Your task to perform on an android device: What's the weather? Image 0: 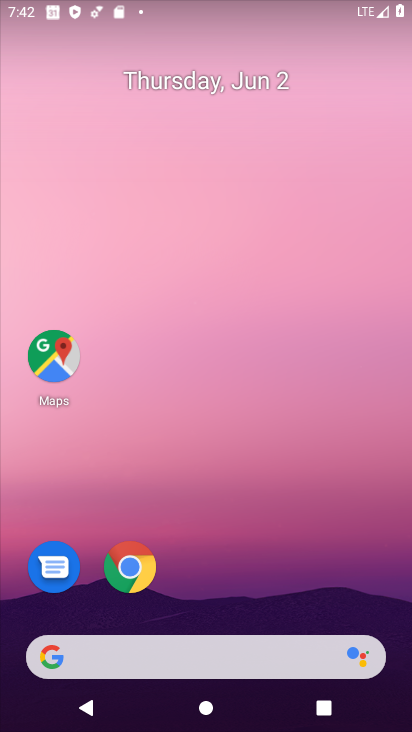
Step 0: click (195, 654)
Your task to perform on an android device: What's the weather? Image 1: 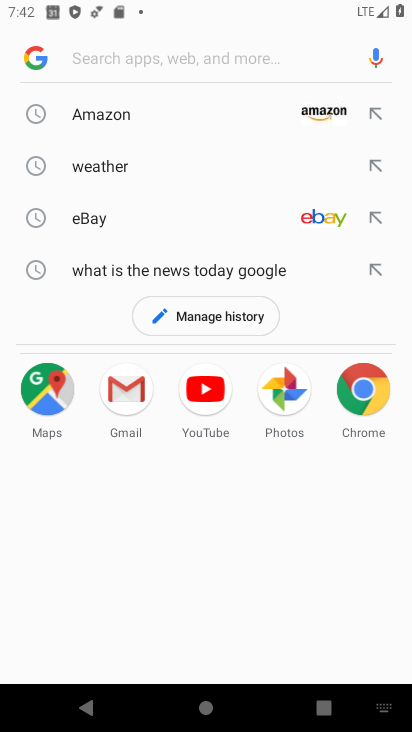
Step 1: click (122, 175)
Your task to perform on an android device: What's the weather? Image 2: 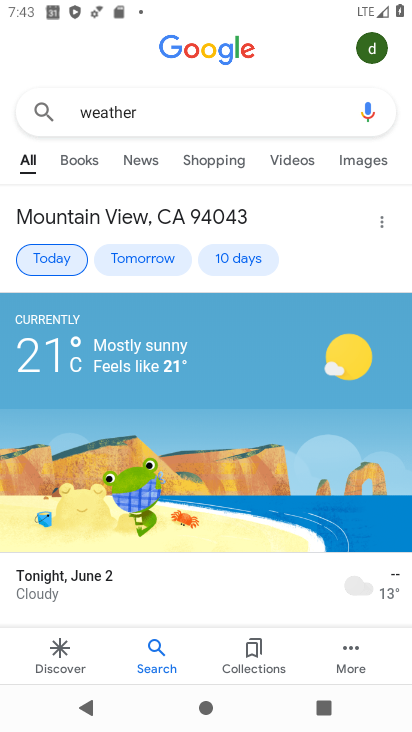
Step 2: task complete